Your task to perform on an android device: Is it going to rain today? Image 0: 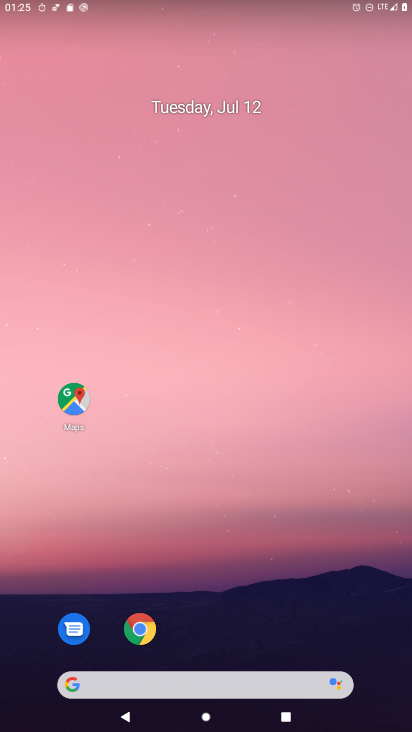
Step 0: click (165, 678)
Your task to perform on an android device: Is it going to rain today? Image 1: 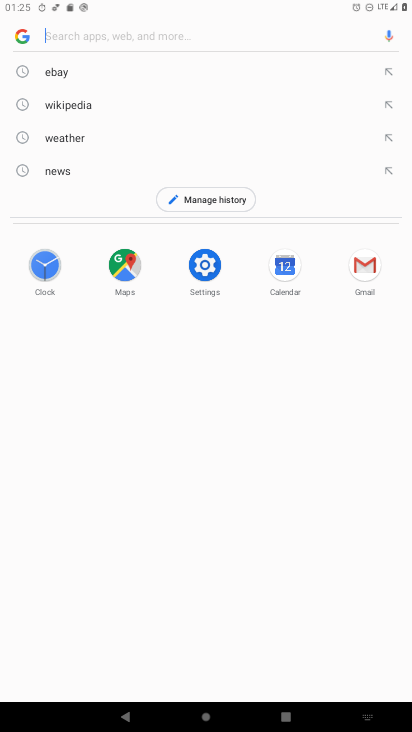
Step 1: type "Is it going to rain today?"
Your task to perform on an android device: Is it going to rain today? Image 2: 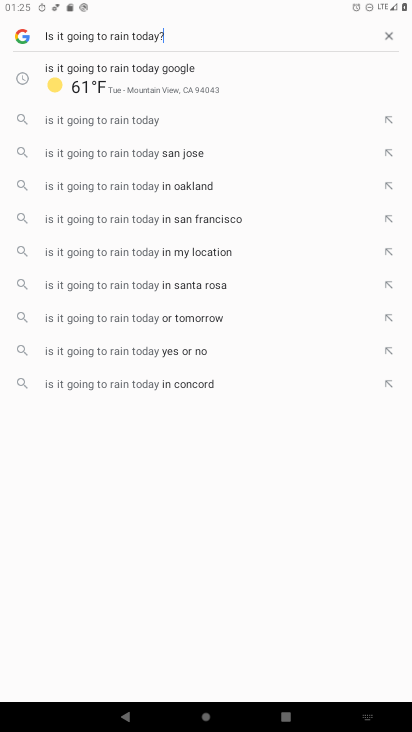
Step 2: type ""
Your task to perform on an android device: Is it going to rain today? Image 3: 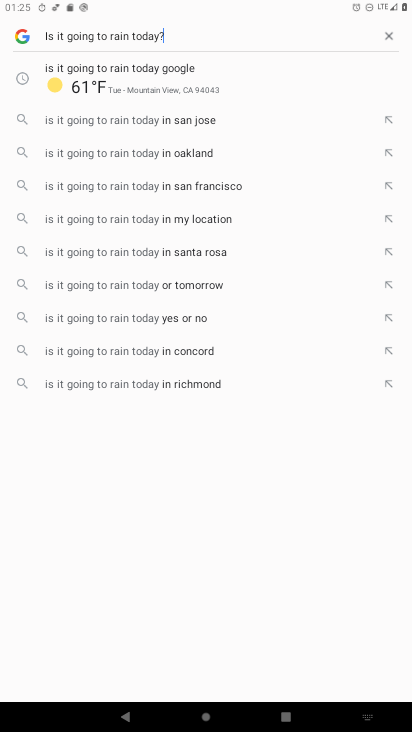
Step 3: task complete